Your task to perform on an android device: empty trash in the gmail app Image 0: 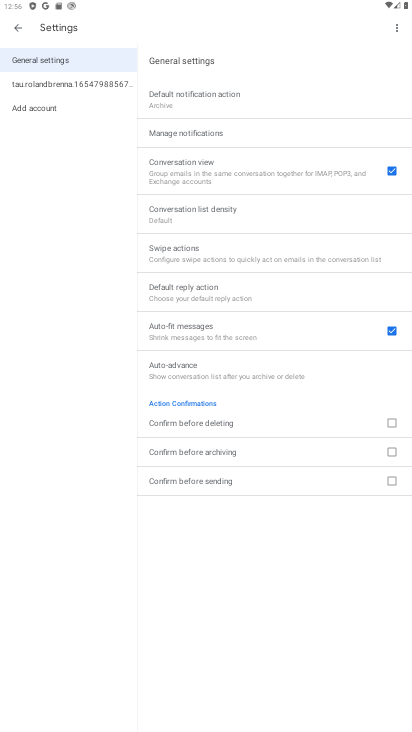
Step 0: press home button
Your task to perform on an android device: empty trash in the gmail app Image 1: 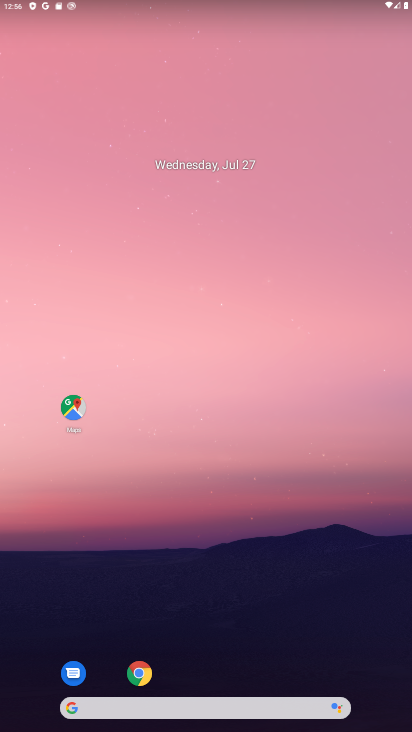
Step 1: drag from (216, 581) to (199, 59)
Your task to perform on an android device: empty trash in the gmail app Image 2: 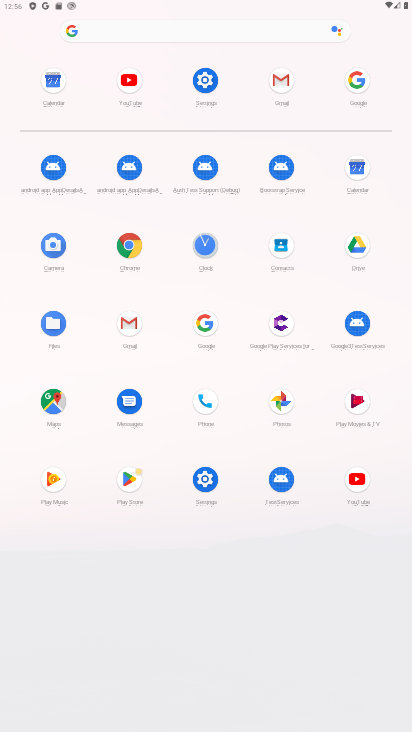
Step 2: click (289, 82)
Your task to perform on an android device: empty trash in the gmail app Image 3: 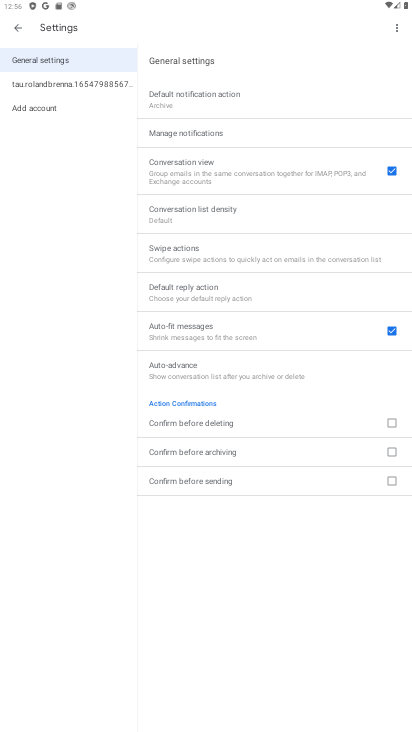
Step 3: click (19, 31)
Your task to perform on an android device: empty trash in the gmail app Image 4: 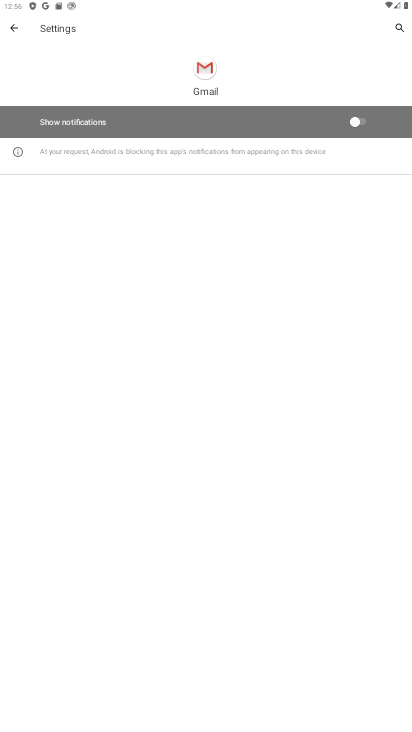
Step 4: click (19, 31)
Your task to perform on an android device: empty trash in the gmail app Image 5: 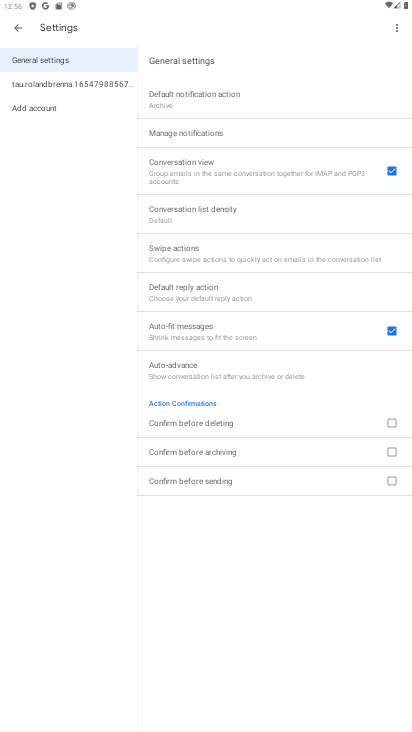
Step 5: click (19, 31)
Your task to perform on an android device: empty trash in the gmail app Image 6: 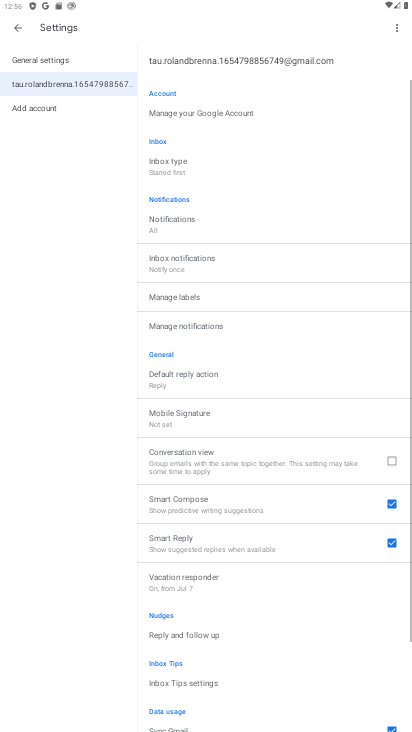
Step 6: click (19, 31)
Your task to perform on an android device: empty trash in the gmail app Image 7: 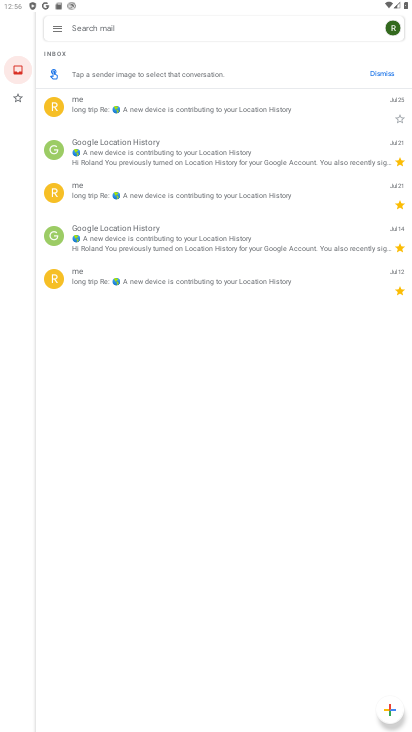
Step 7: click (57, 33)
Your task to perform on an android device: empty trash in the gmail app Image 8: 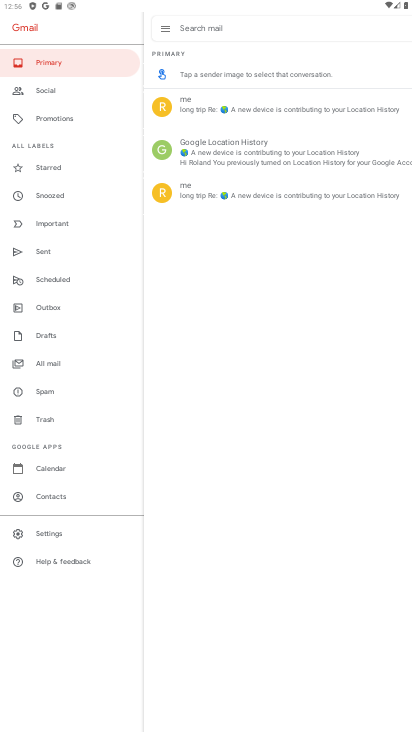
Step 8: click (51, 420)
Your task to perform on an android device: empty trash in the gmail app Image 9: 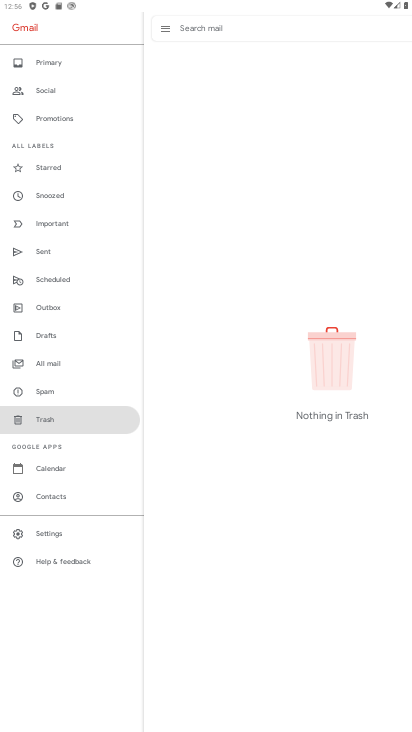
Step 9: task complete